Your task to perform on an android device: show emergency info Image 0: 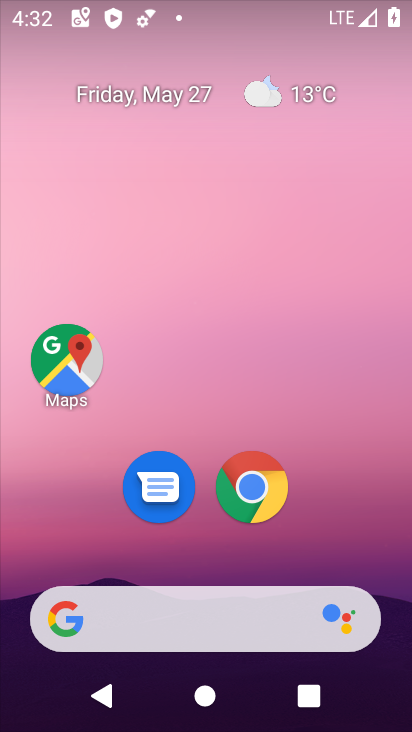
Step 0: drag from (314, 530) to (290, 105)
Your task to perform on an android device: show emergency info Image 1: 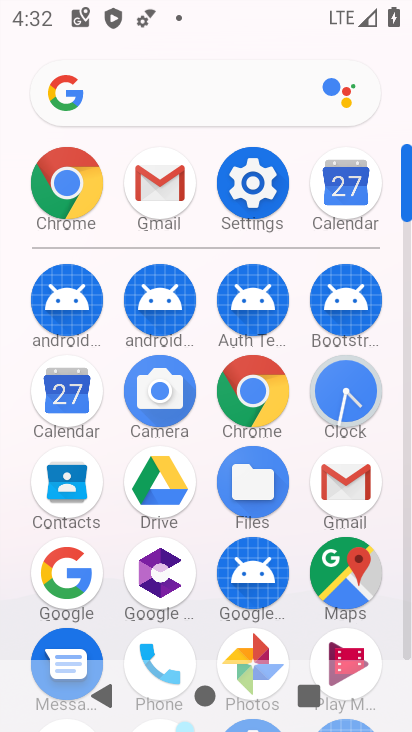
Step 1: click (254, 177)
Your task to perform on an android device: show emergency info Image 2: 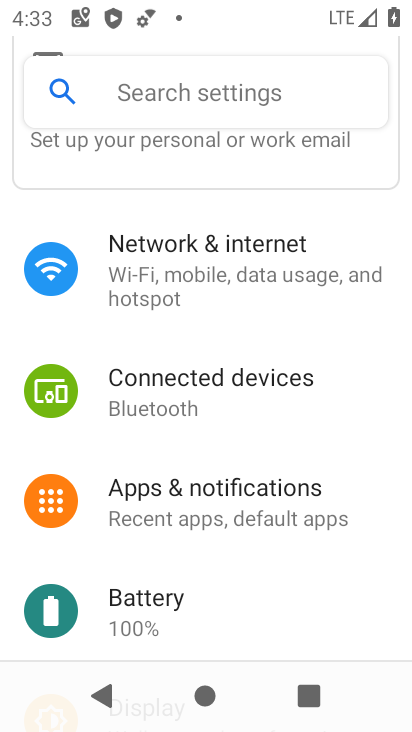
Step 2: drag from (233, 565) to (284, 173)
Your task to perform on an android device: show emergency info Image 3: 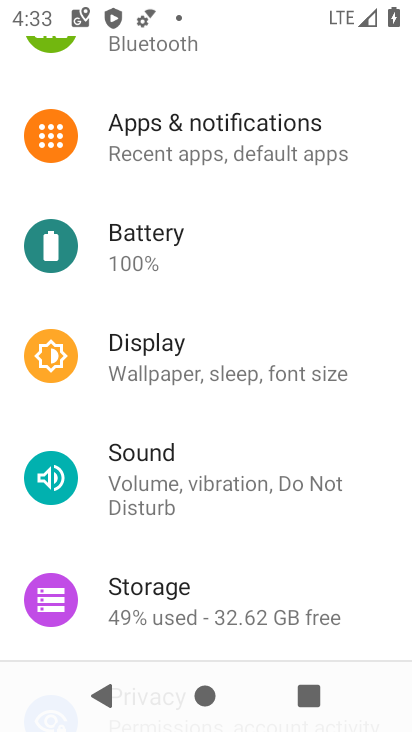
Step 3: drag from (233, 511) to (274, 150)
Your task to perform on an android device: show emergency info Image 4: 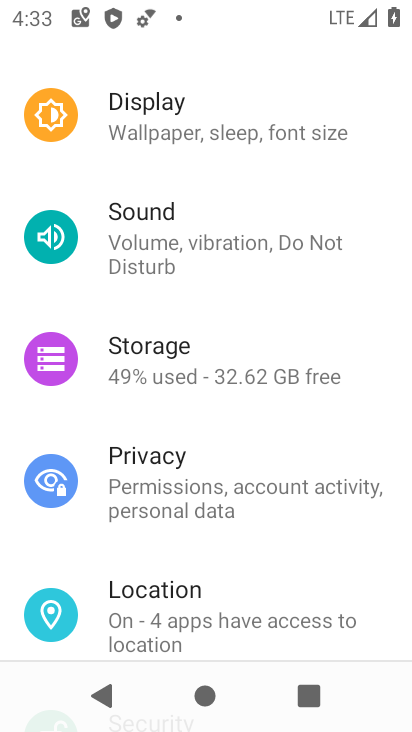
Step 4: drag from (217, 580) to (246, 182)
Your task to perform on an android device: show emergency info Image 5: 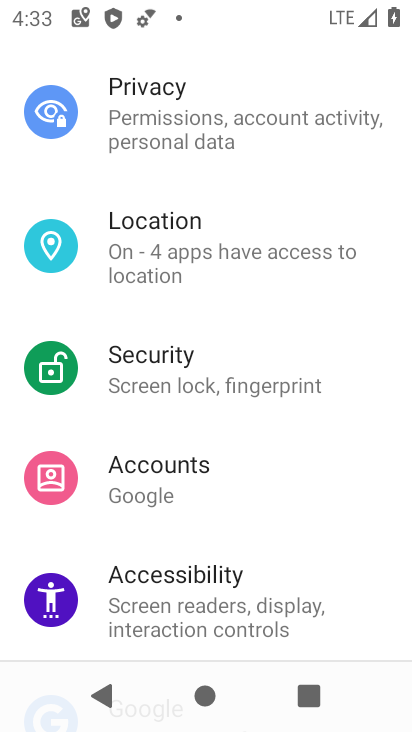
Step 5: drag from (202, 518) to (218, 224)
Your task to perform on an android device: show emergency info Image 6: 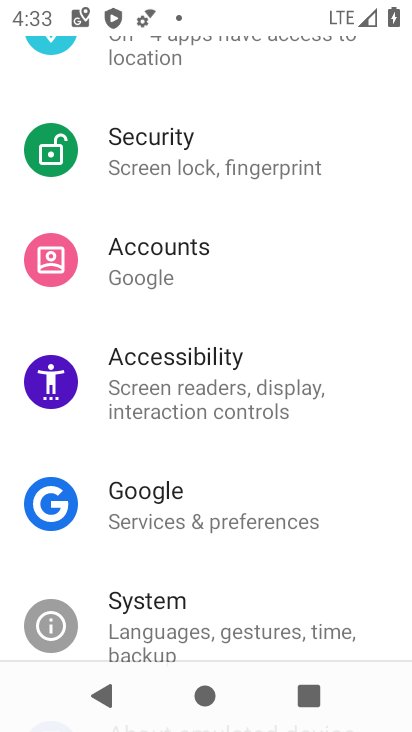
Step 6: drag from (205, 583) to (237, 239)
Your task to perform on an android device: show emergency info Image 7: 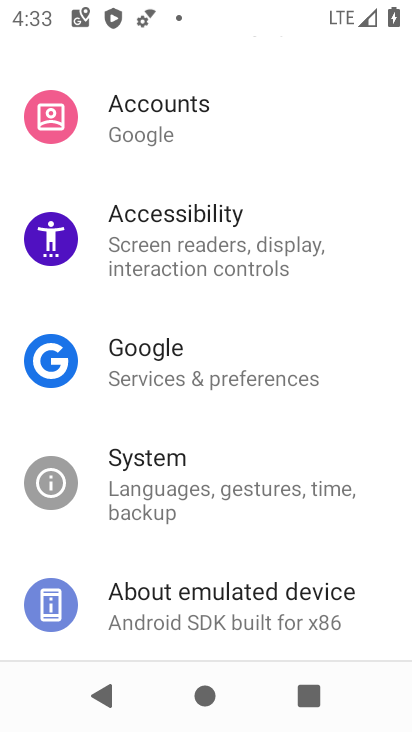
Step 7: click (204, 606)
Your task to perform on an android device: show emergency info Image 8: 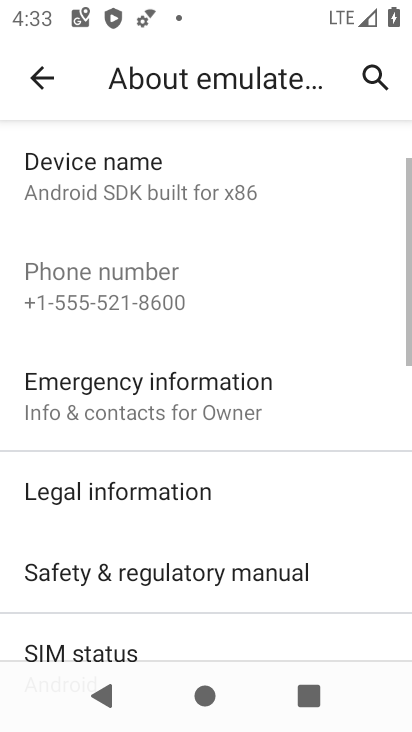
Step 8: drag from (227, 622) to (218, 157)
Your task to perform on an android device: show emergency info Image 9: 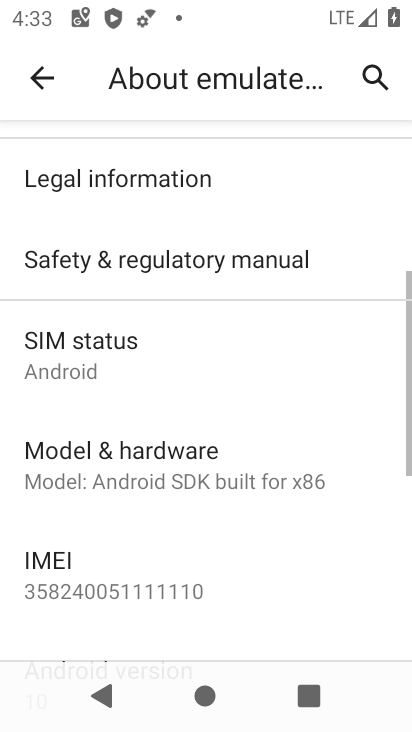
Step 9: drag from (201, 535) to (255, 197)
Your task to perform on an android device: show emergency info Image 10: 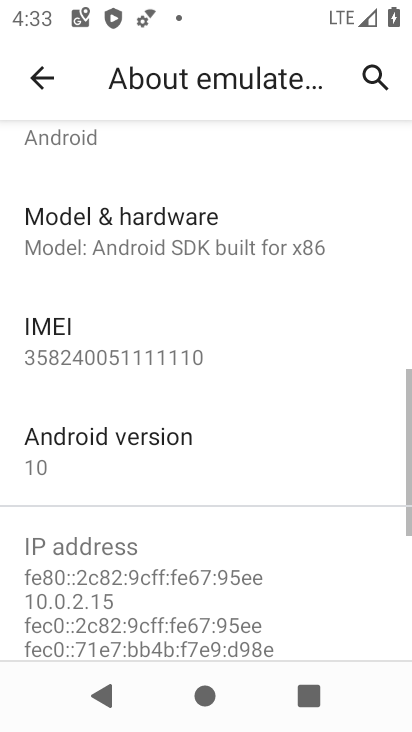
Step 10: drag from (209, 542) to (239, 161)
Your task to perform on an android device: show emergency info Image 11: 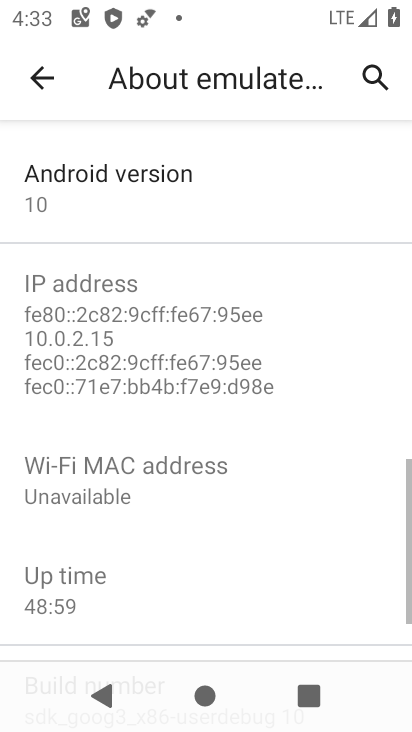
Step 11: drag from (163, 463) to (196, 153)
Your task to perform on an android device: show emergency info Image 12: 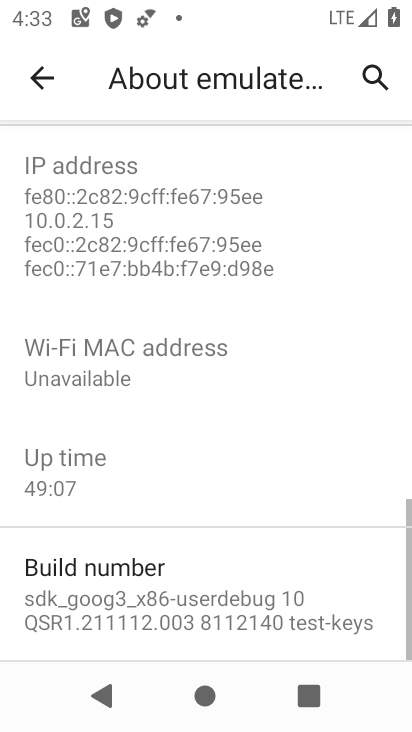
Step 12: drag from (225, 337) to (244, 578)
Your task to perform on an android device: show emergency info Image 13: 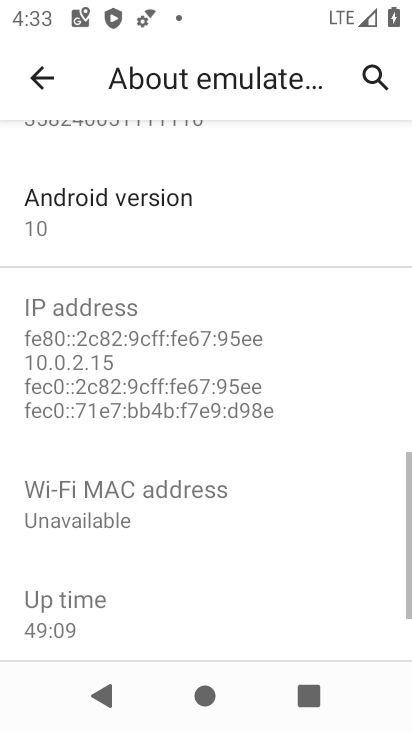
Step 13: drag from (228, 249) to (215, 573)
Your task to perform on an android device: show emergency info Image 14: 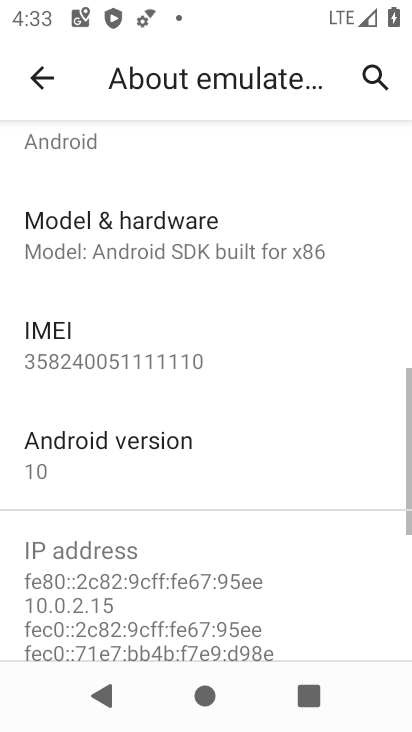
Step 14: drag from (220, 245) to (216, 649)
Your task to perform on an android device: show emergency info Image 15: 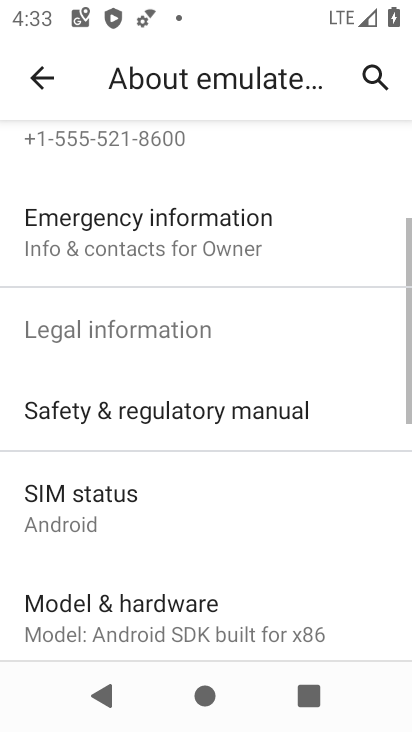
Step 15: click (188, 222)
Your task to perform on an android device: show emergency info Image 16: 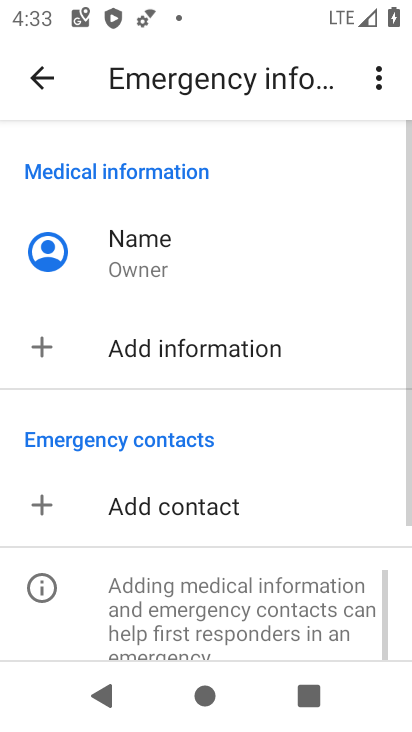
Step 16: task complete